Your task to perform on an android device: Open Google Chrome Image 0: 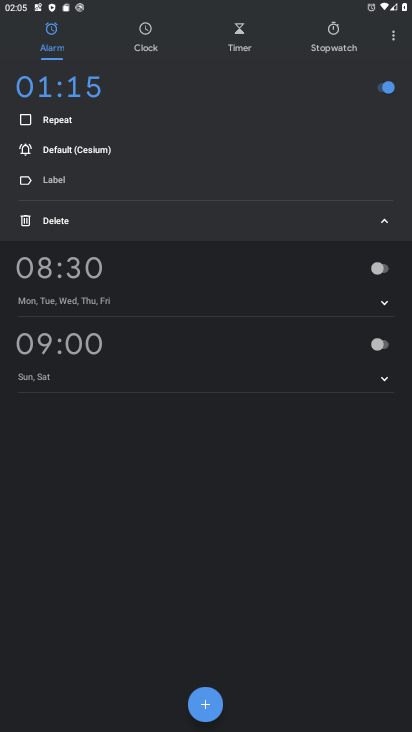
Step 0: press home button
Your task to perform on an android device: Open Google Chrome Image 1: 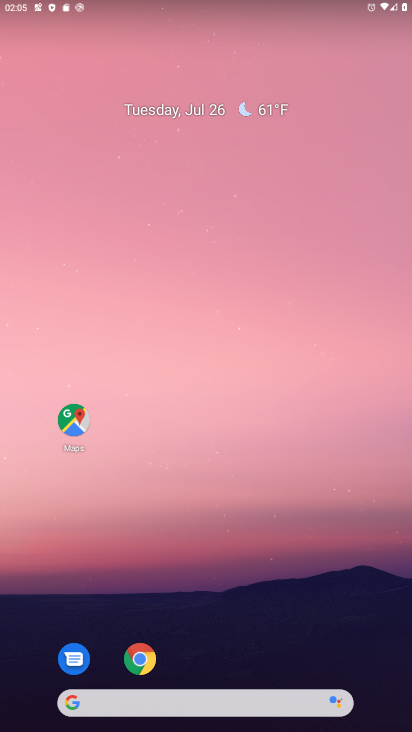
Step 1: click (142, 661)
Your task to perform on an android device: Open Google Chrome Image 2: 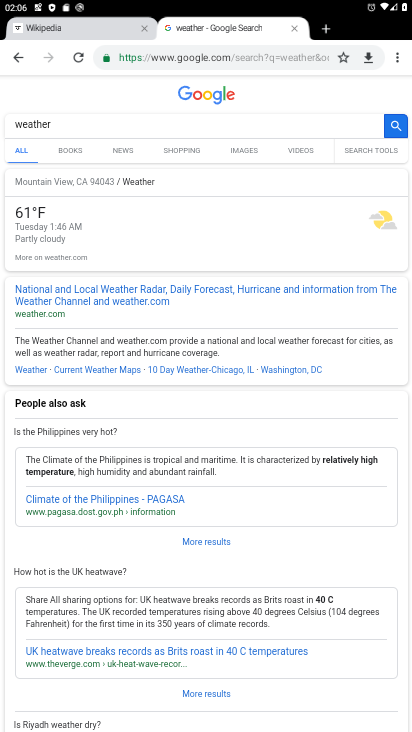
Step 2: task complete